Your task to perform on an android device: Go to accessibility settings Image 0: 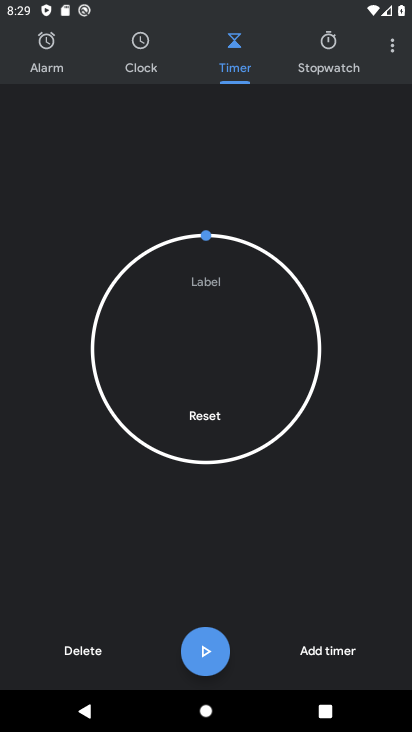
Step 0: press home button
Your task to perform on an android device: Go to accessibility settings Image 1: 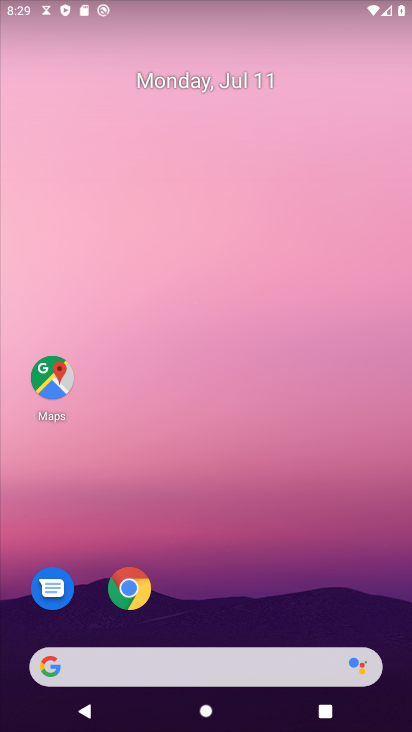
Step 1: drag from (264, 602) to (275, 29)
Your task to perform on an android device: Go to accessibility settings Image 2: 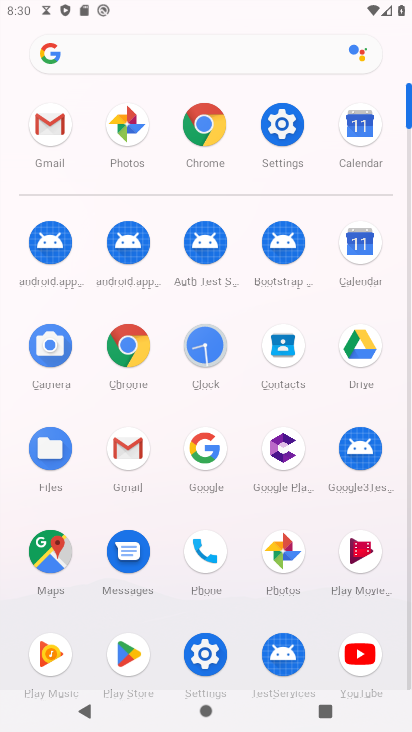
Step 2: click (292, 127)
Your task to perform on an android device: Go to accessibility settings Image 3: 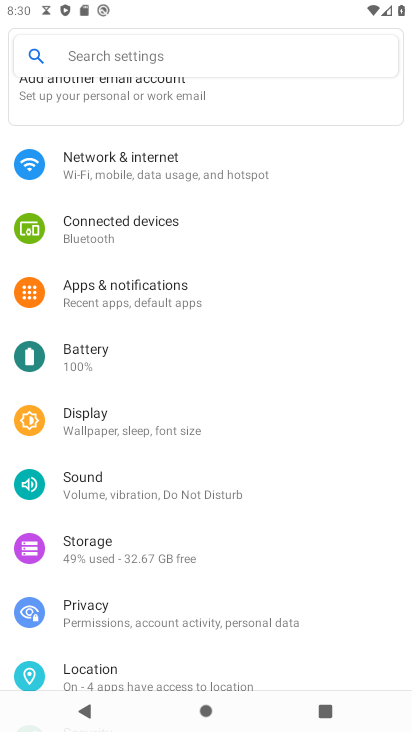
Step 3: drag from (202, 599) to (213, 132)
Your task to perform on an android device: Go to accessibility settings Image 4: 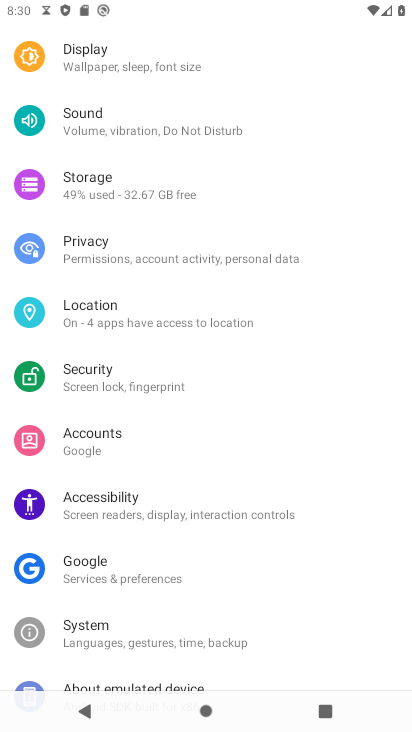
Step 4: click (131, 497)
Your task to perform on an android device: Go to accessibility settings Image 5: 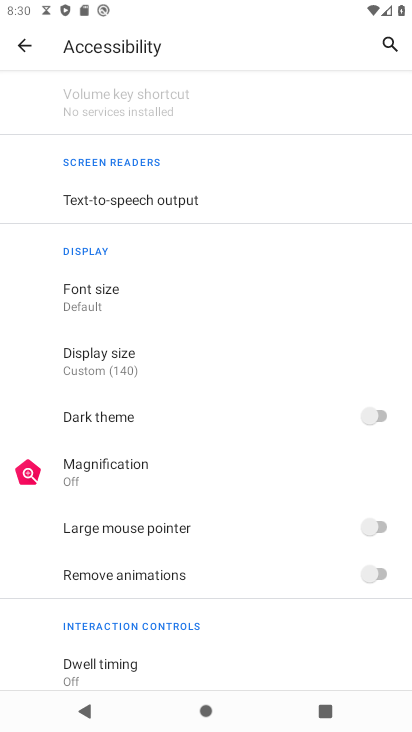
Step 5: task complete